Your task to perform on an android device: choose inbox layout in the gmail app Image 0: 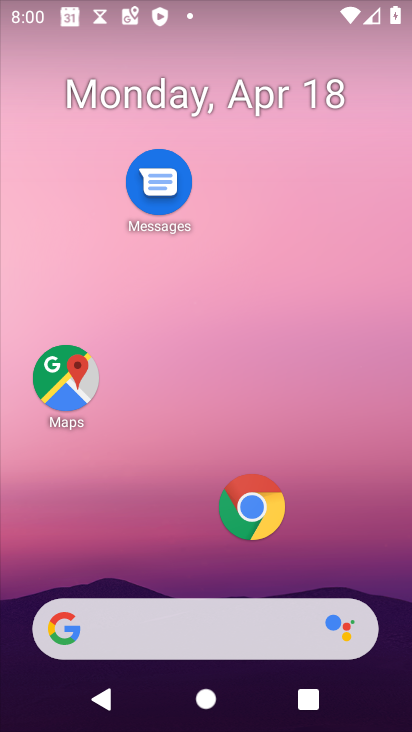
Step 0: drag from (204, 570) to (206, 234)
Your task to perform on an android device: choose inbox layout in the gmail app Image 1: 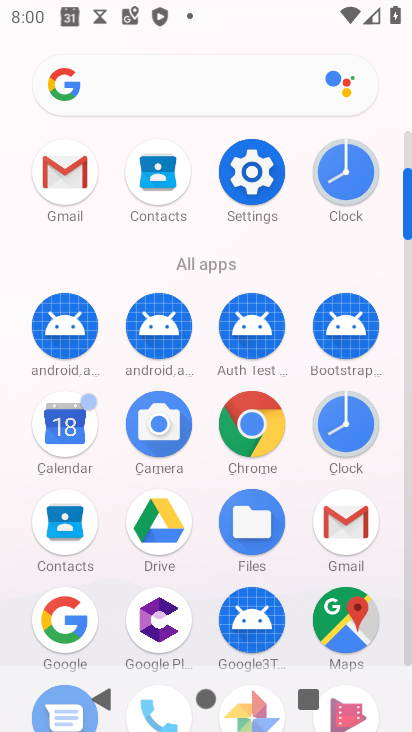
Step 1: click (332, 530)
Your task to perform on an android device: choose inbox layout in the gmail app Image 2: 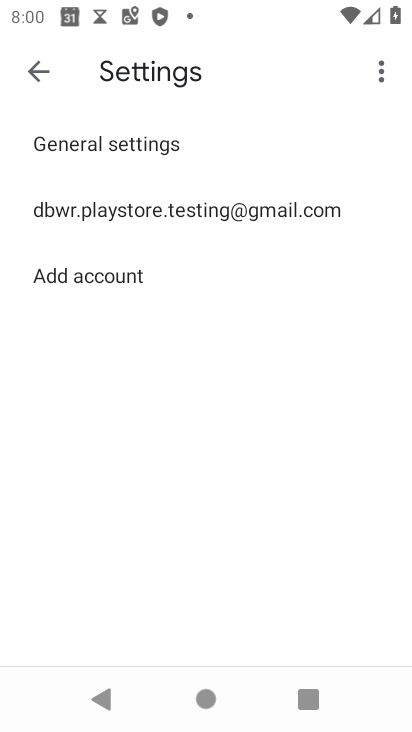
Step 2: click (149, 213)
Your task to perform on an android device: choose inbox layout in the gmail app Image 3: 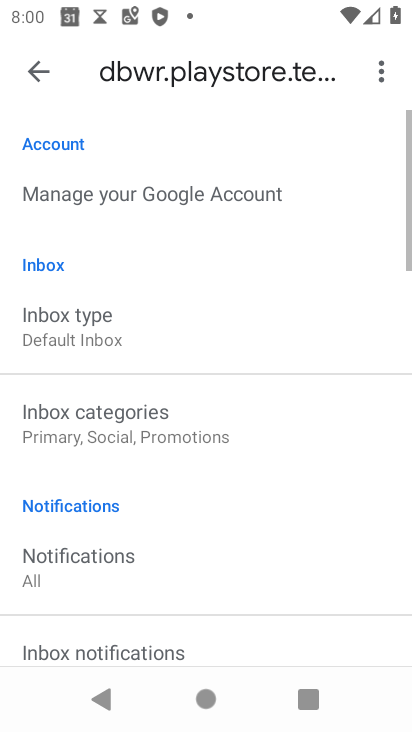
Step 3: click (77, 340)
Your task to perform on an android device: choose inbox layout in the gmail app Image 4: 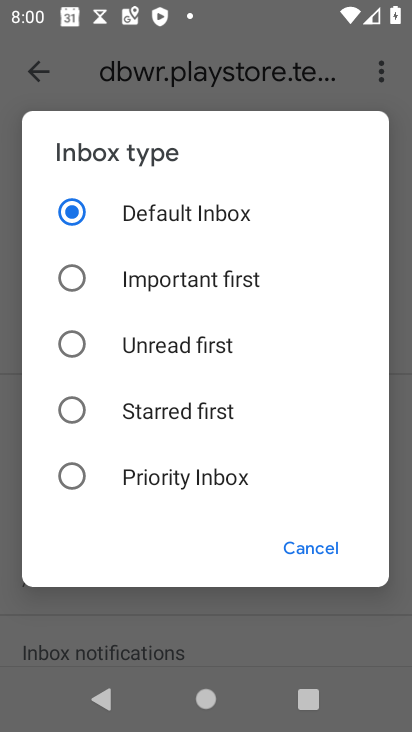
Step 4: click (73, 468)
Your task to perform on an android device: choose inbox layout in the gmail app Image 5: 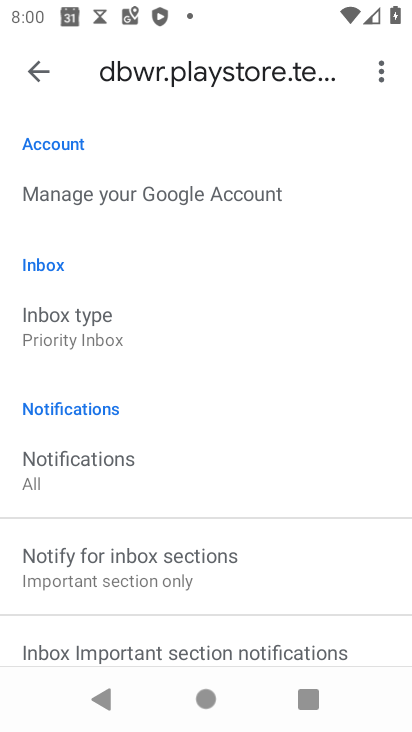
Step 5: click (46, 63)
Your task to perform on an android device: choose inbox layout in the gmail app Image 6: 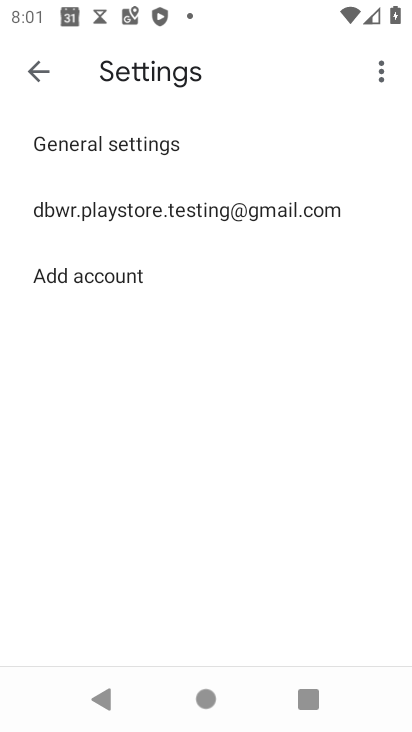
Step 6: task complete